Your task to perform on an android device: open sync settings in chrome Image 0: 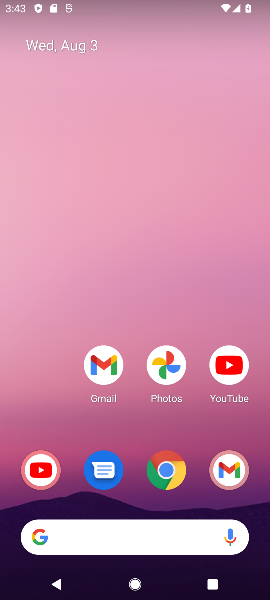
Step 0: press home button
Your task to perform on an android device: open sync settings in chrome Image 1: 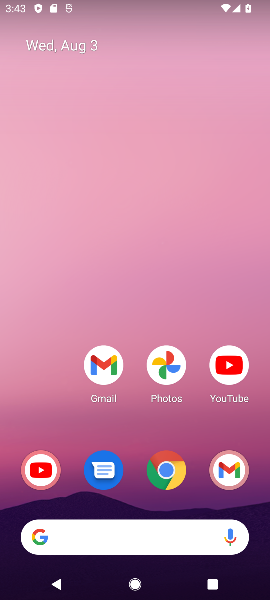
Step 1: click (161, 479)
Your task to perform on an android device: open sync settings in chrome Image 2: 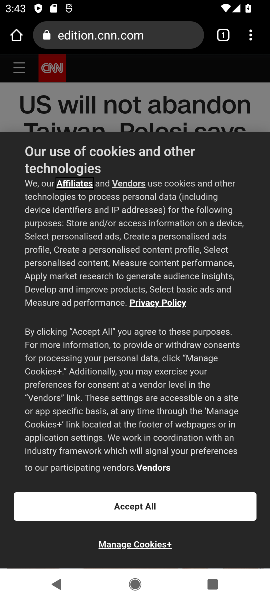
Step 2: click (250, 39)
Your task to perform on an android device: open sync settings in chrome Image 3: 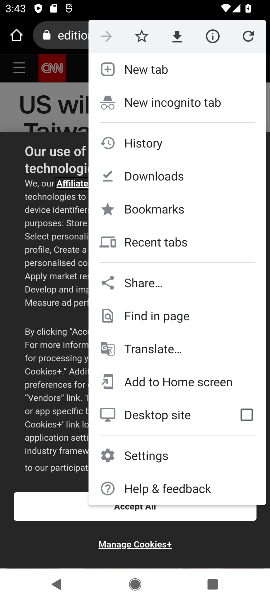
Step 3: click (136, 453)
Your task to perform on an android device: open sync settings in chrome Image 4: 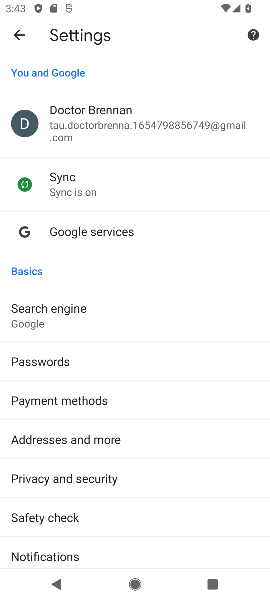
Step 4: click (109, 193)
Your task to perform on an android device: open sync settings in chrome Image 5: 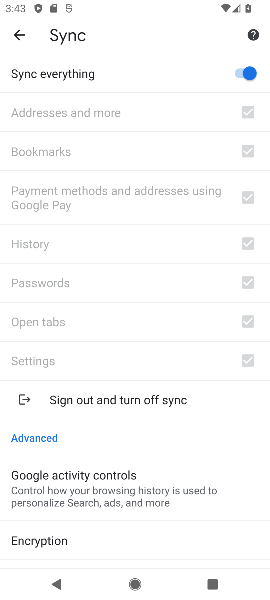
Step 5: task complete